Your task to perform on an android device: change notification settings in the gmail app Image 0: 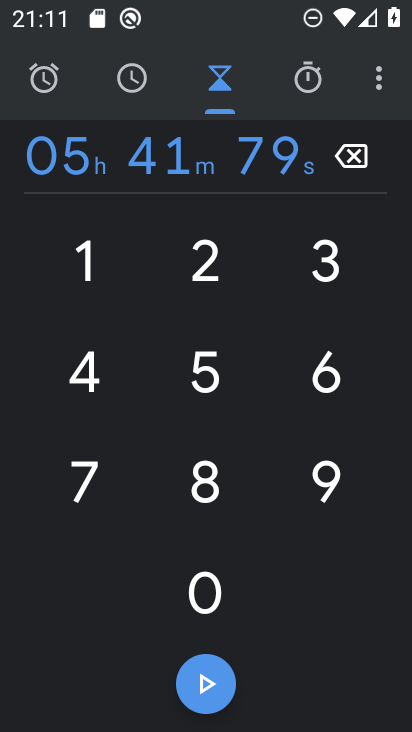
Step 0: press home button
Your task to perform on an android device: change notification settings in the gmail app Image 1: 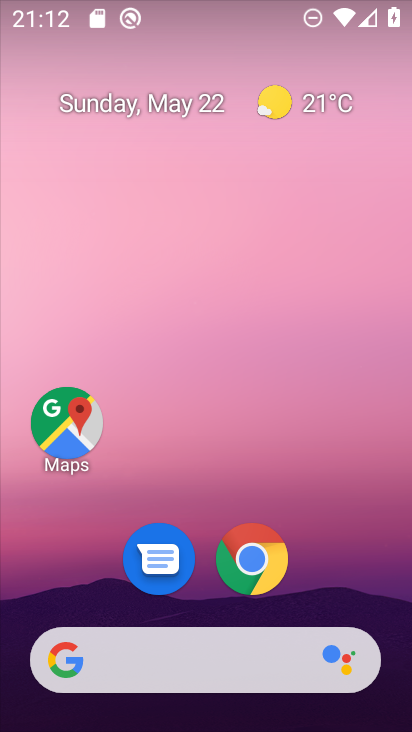
Step 1: drag from (252, 664) to (226, 114)
Your task to perform on an android device: change notification settings in the gmail app Image 2: 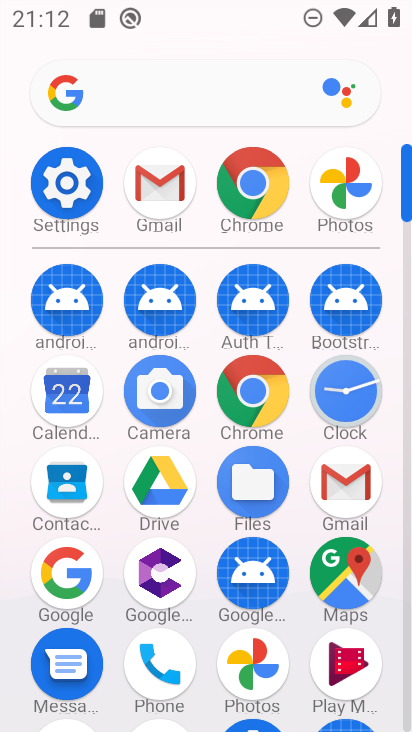
Step 2: click (161, 217)
Your task to perform on an android device: change notification settings in the gmail app Image 3: 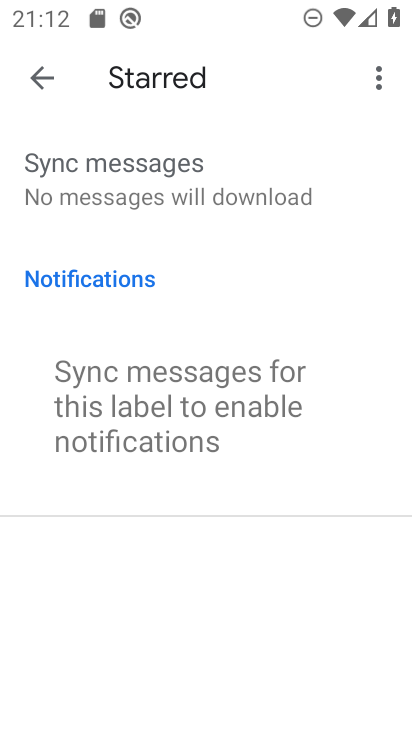
Step 3: click (39, 74)
Your task to perform on an android device: change notification settings in the gmail app Image 4: 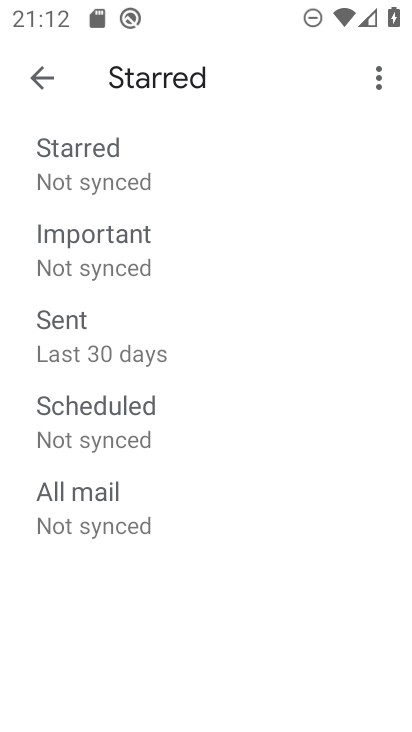
Step 4: click (41, 98)
Your task to perform on an android device: change notification settings in the gmail app Image 5: 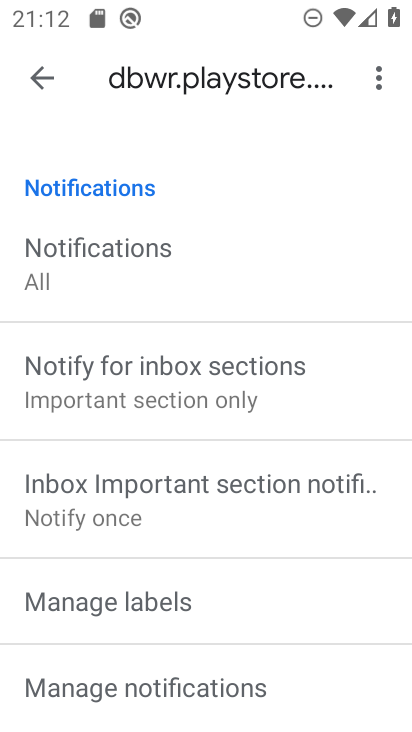
Step 5: click (66, 273)
Your task to perform on an android device: change notification settings in the gmail app Image 6: 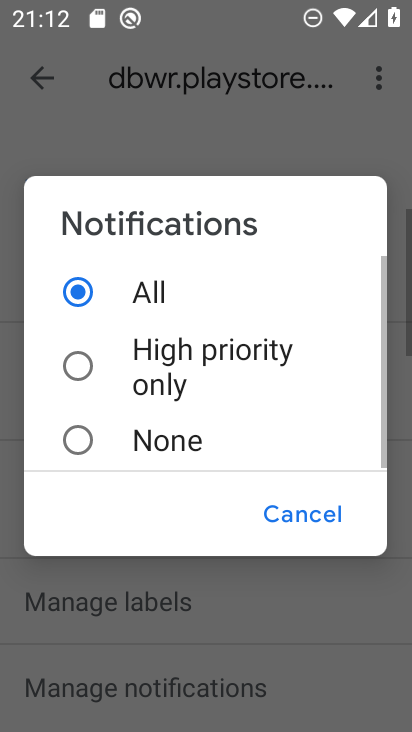
Step 6: click (179, 352)
Your task to perform on an android device: change notification settings in the gmail app Image 7: 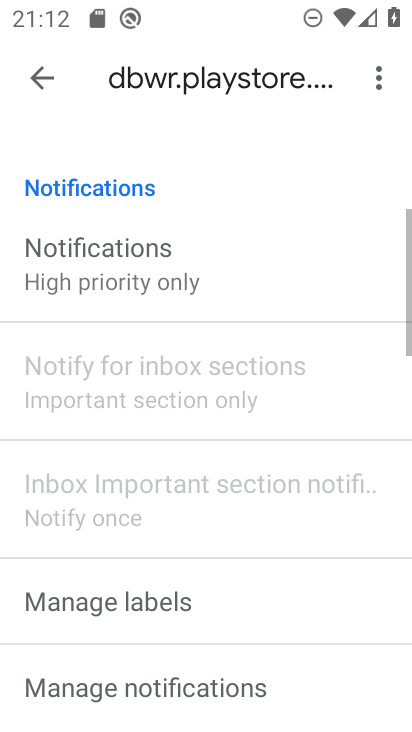
Step 7: task complete